Your task to perform on an android device: Check the weather Image 0: 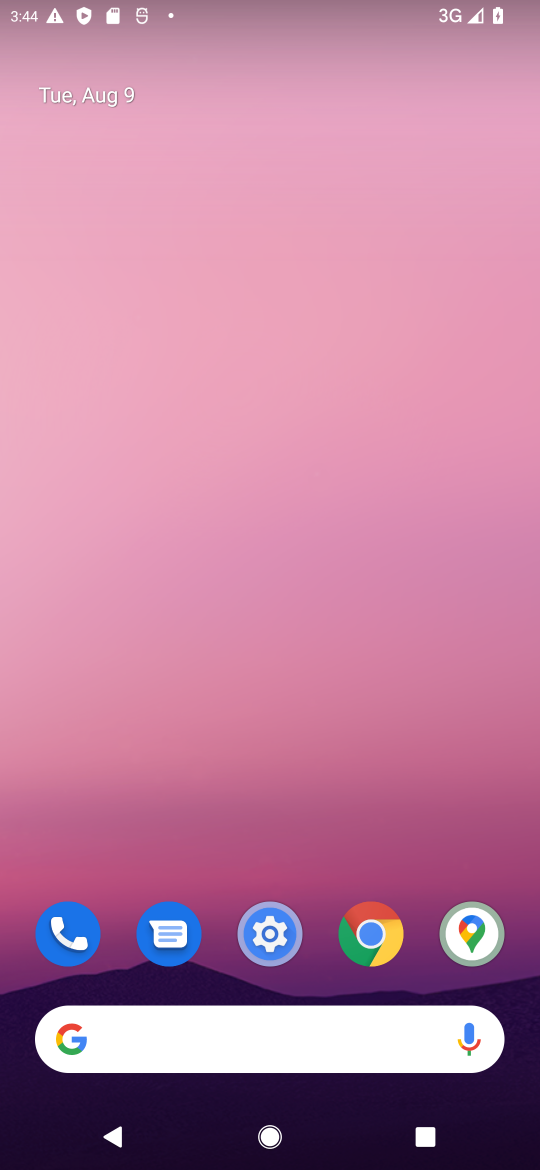
Step 0: click (260, 1018)
Your task to perform on an android device: Check the weather Image 1: 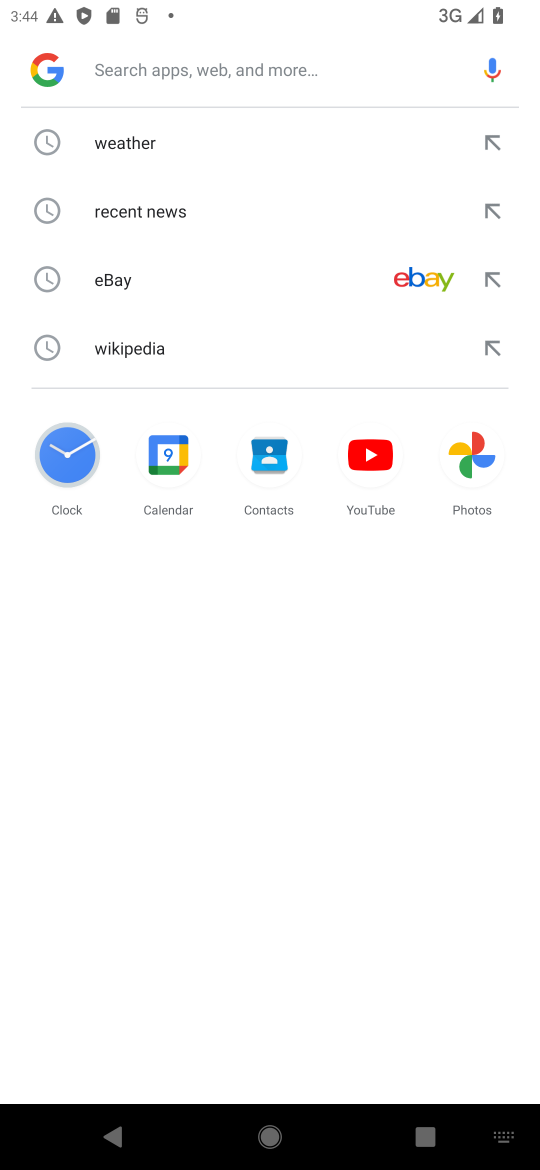
Step 1: click (242, 125)
Your task to perform on an android device: Check the weather Image 2: 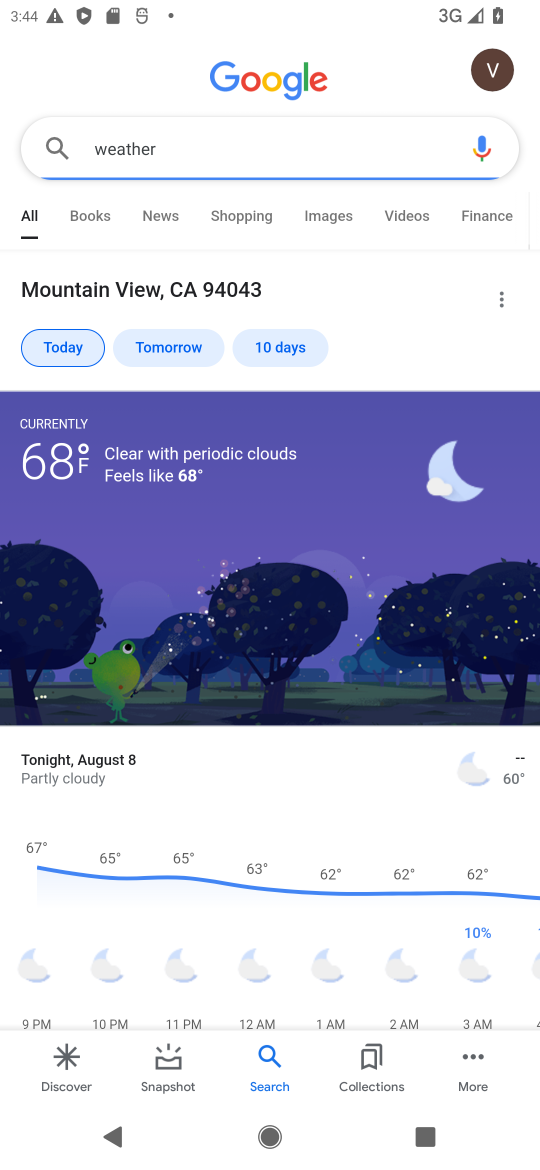
Step 2: task complete